Your task to perform on an android device: See recent photos Image 0: 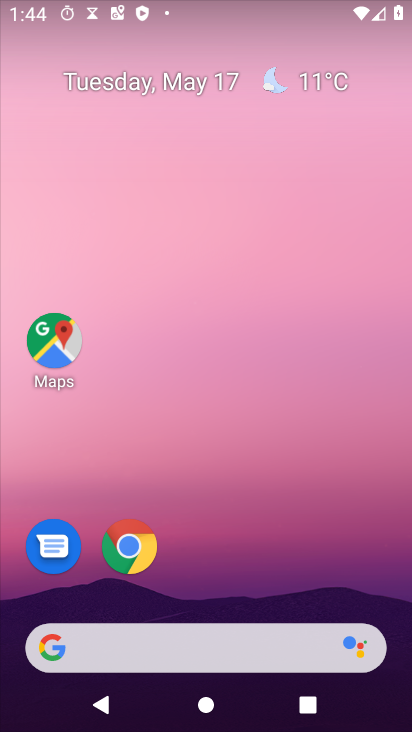
Step 0: drag from (222, 650) to (372, 45)
Your task to perform on an android device: See recent photos Image 1: 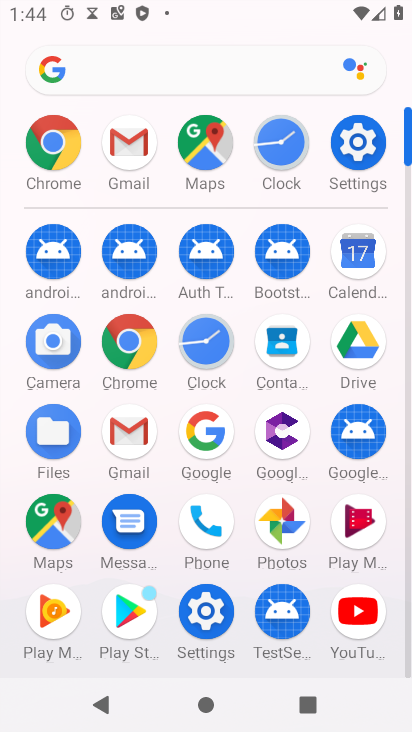
Step 1: click (273, 523)
Your task to perform on an android device: See recent photos Image 2: 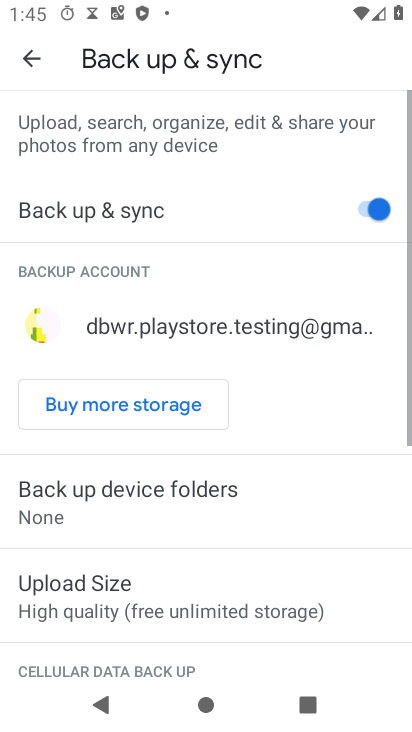
Step 2: click (33, 54)
Your task to perform on an android device: See recent photos Image 3: 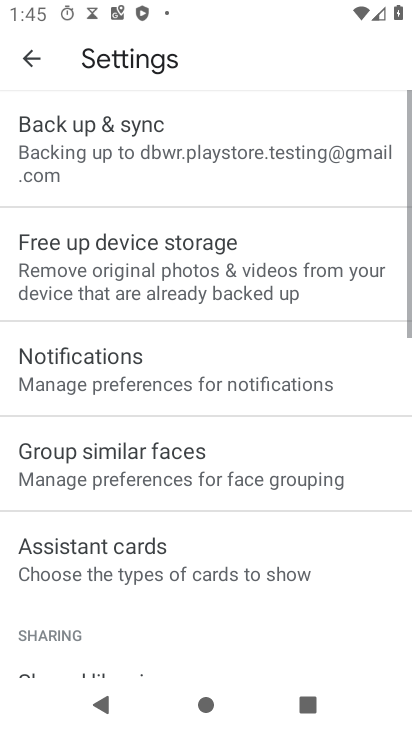
Step 3: click (33, 54)
Your task to perform on an android device: See recent photos Image 4: 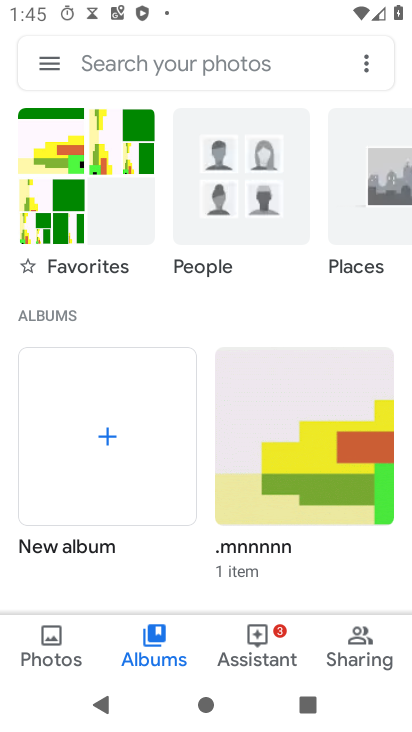
Step 4: task complete